Your task to perform on an android device: What's the weather going to be this weekend? Image 0: 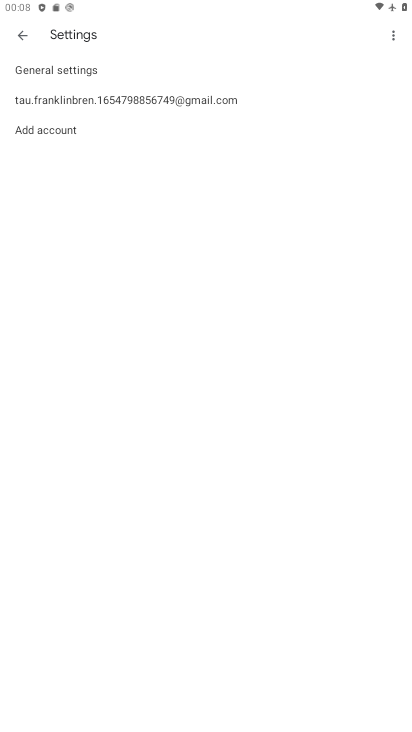
Step 0: click (17, 36)
Your task to perform on an android device: What's the weather going to be this weekend? Image 1: 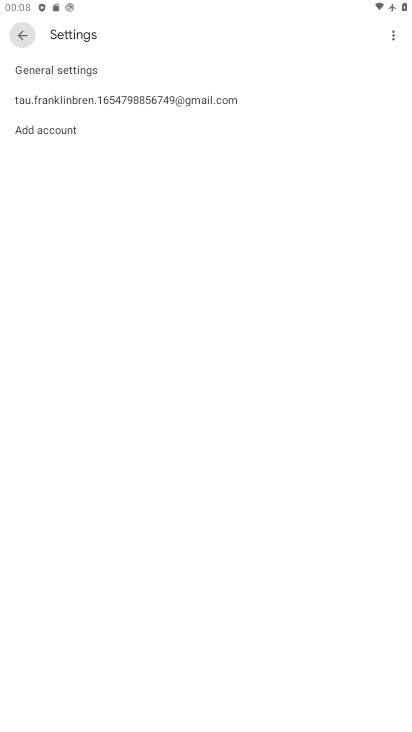
Step 1: click (18, 36)
Your task to perform on an android device: What's the weather going to be this weekend? Image 2: 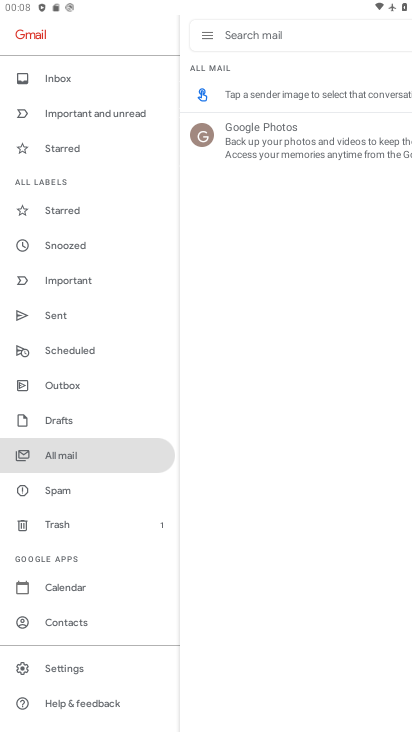
Step 2: press back button
Your task to perform on an android device: What's the weather going to be this weekend? Image 3: 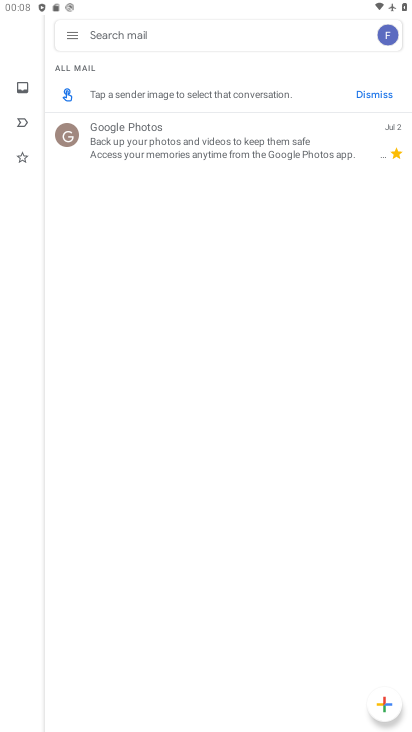
Step 3: press home button
Your task to perform on an android device: What's the weather going to be this weekend? Image 4: 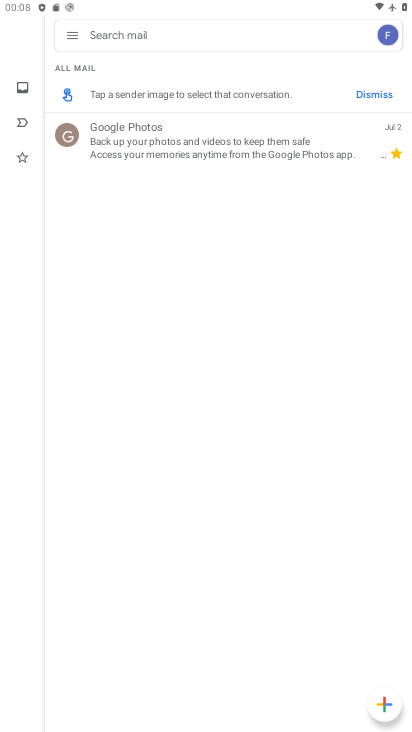
Step 4: press home button
Your task to perform on an android device: What's the weather going to be this weekend? Image 5: 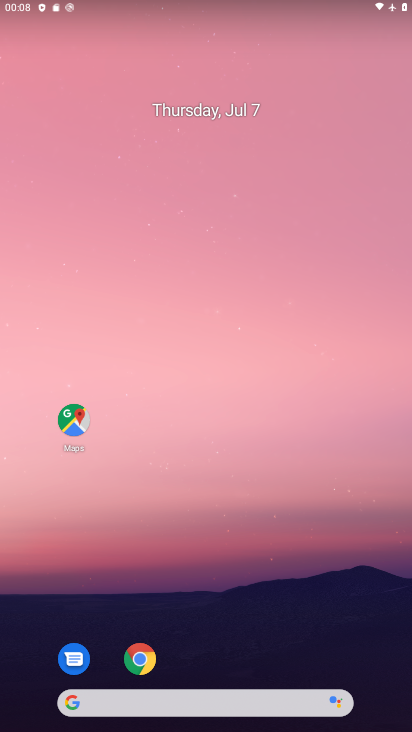
Step 5: drag from (240, 667) to (188, 163)
Your task to perform on an android device: What's the weather going to be this weekend? Image 6: 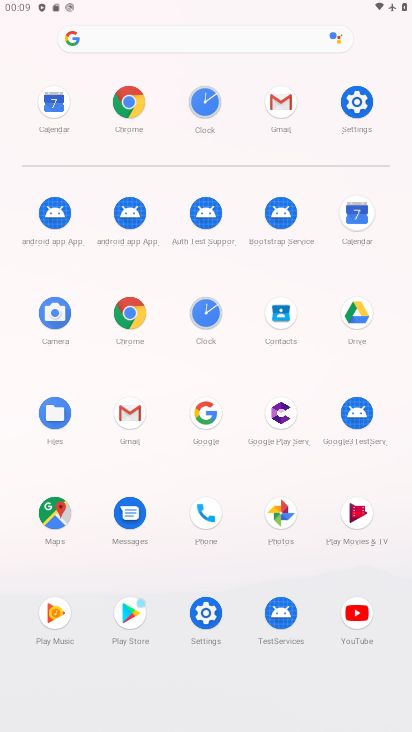
Step 6: click (124, 100)
Your task to perform on an android device: What's the weather going to be this weekend? Image 7: 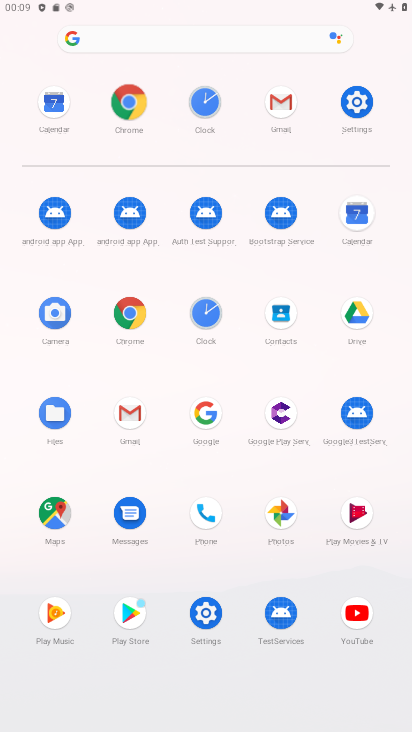
Step 7: click (124, 98)
Your task to perform on an android device: What's the weather going to be this weekend? Image 8: 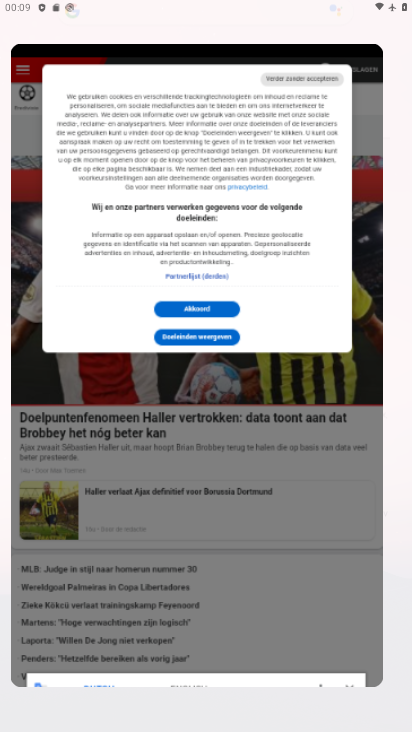
Step 8: click (128, 101)
Your task to perform on an android device: What's the weather going to be this weekend? Image 9: 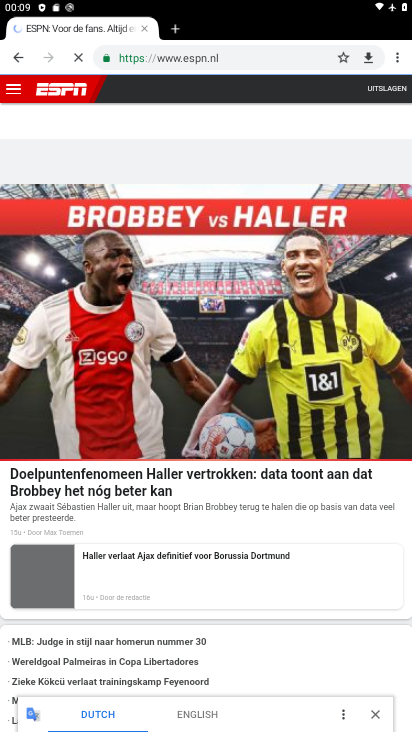
Step 9: click (19, 59)
Your task to perform on an android device: What's the weather going to be this weekend? Image 10: 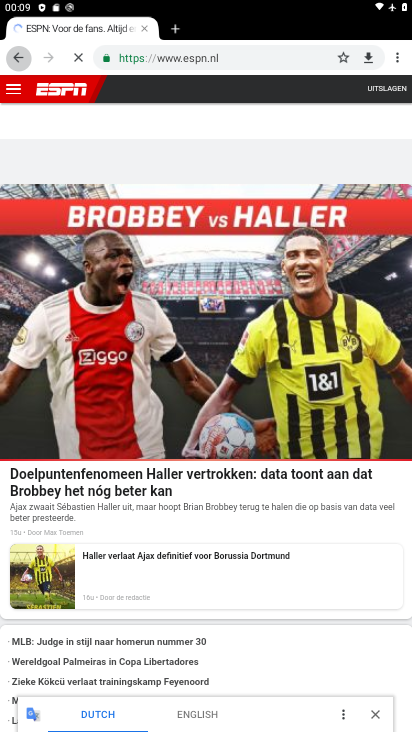
Step 10: click (22, 62)
Your task to perform on an android device: What's the weather going to be this weekend? Image 11: 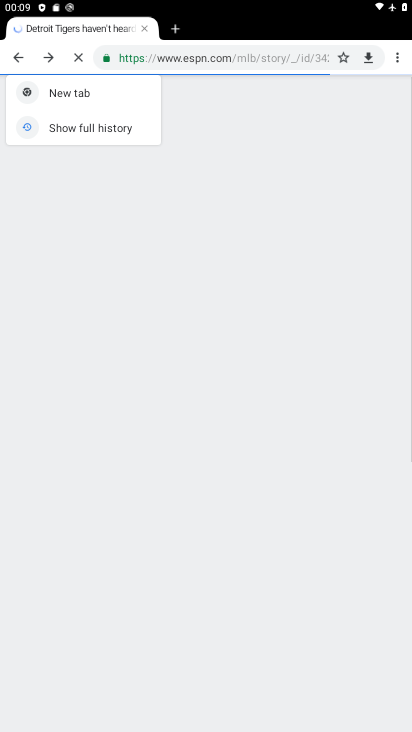
Step 11: click (63, 86)
Your task to perform on an android device: What's the weather going to be this weekend? Image 12: 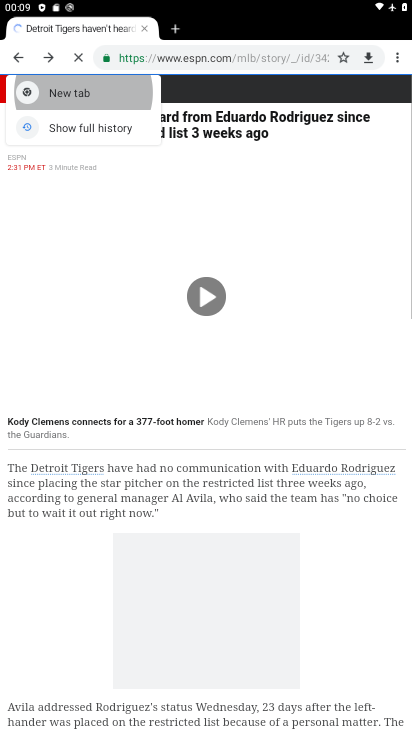
Step 12: click (75, 90)
Your task to perform on an android device: What's the weather going to be this weekend? Image 13: 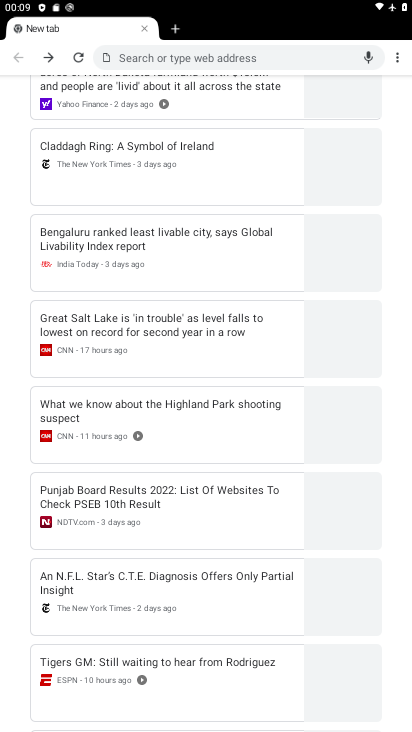
Step 13: click (157, 60)
Your task to perform on an android device: What's the weather going to be this weekend? Image 14: 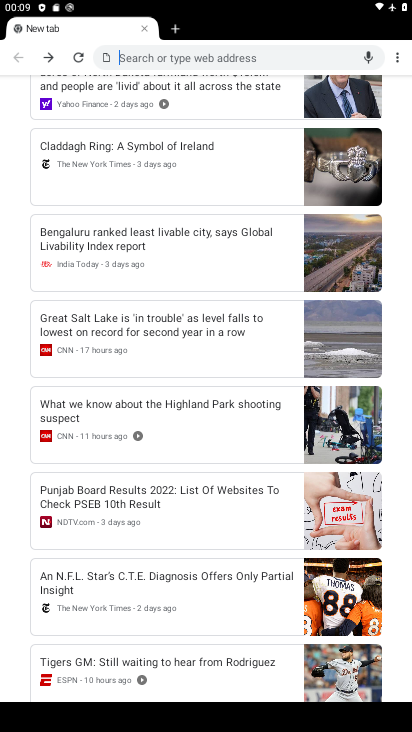
Step 14: type "weather  for tomorrow"
Your task to perform on an android device: What's the weather going to be this weekend? Image 15: 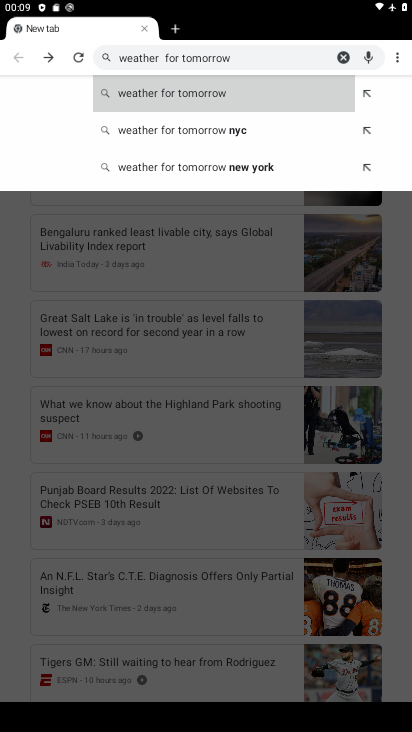
Step 15: click (262, 87)
Your task to perform on an android device: What's the weather going to be this weekend? Image 16: 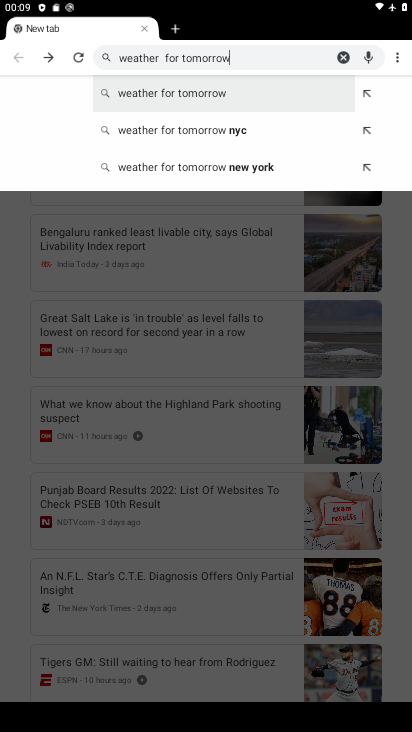
Step 16: click (261, 89)
Your task to perform on an android device: What's the weather going to be this weekend? Image 17: 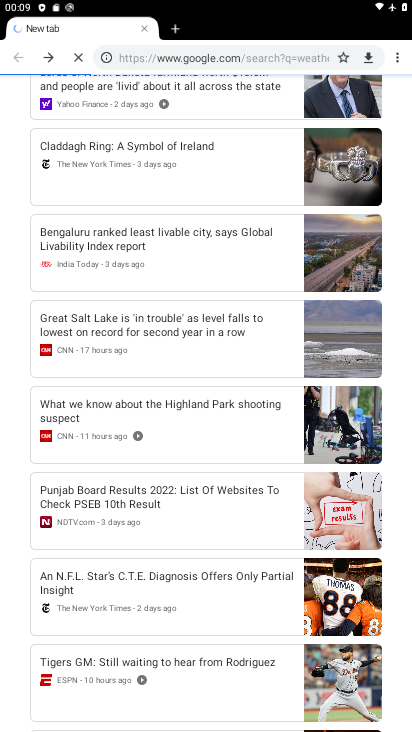
Step 17: click (273, 101)
Your task to perform on an android device: What's the weather going to be this weekend? Image 18: 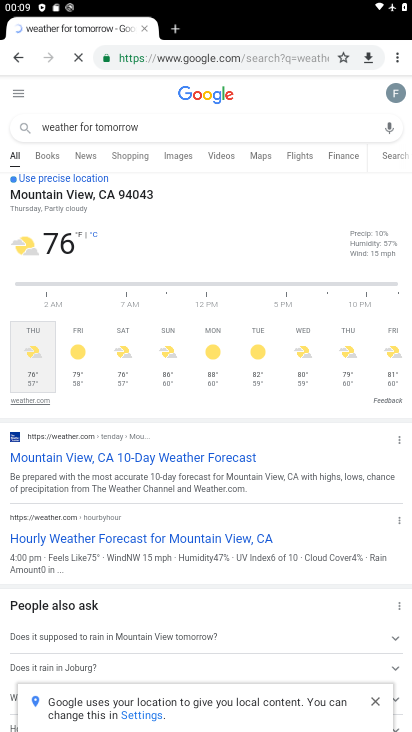
Step 18: task complete